Your task to perform on an android device: set default search engine in the chrome app Image 0: 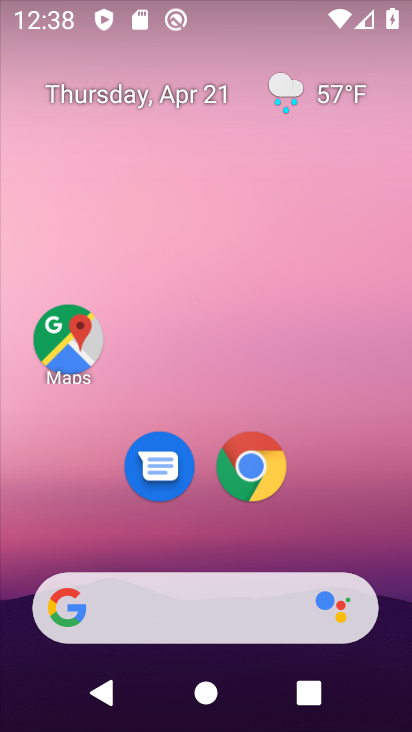
Step 0: drag from (349, 400) to (411, 44)
Your task to perform on an android device: set default search engine in the chrome app Image 1: 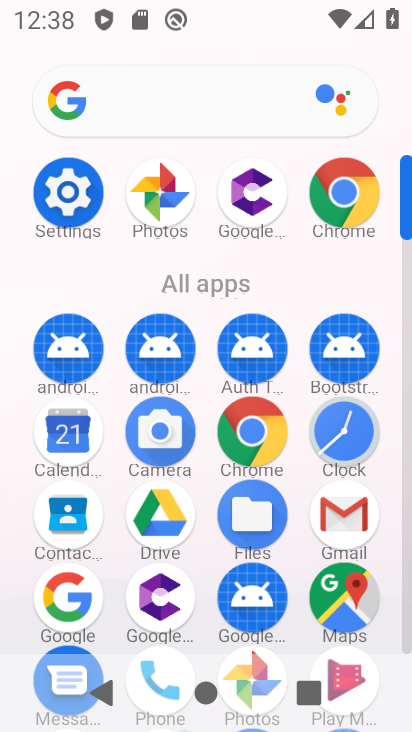
Step 1: click (357, 202)
Your task to perform on an android device: set default search engine in the chrome app Image 2: 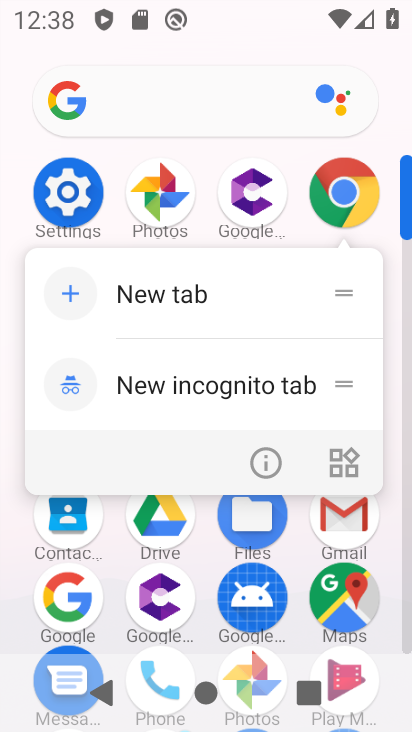
Step 2: click (357, 202)
Your task to perform on an android device: set default search engine in the chrome app Image 3: 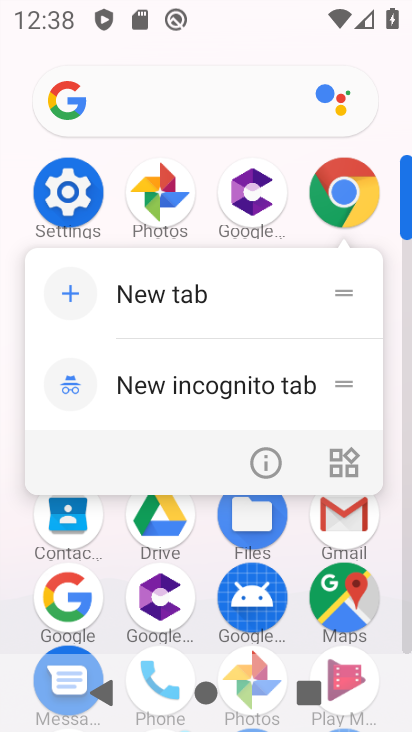
Step 3: click (357, 202)
Your task to perform on an android device: set default search engine in the chrome app Image 4: 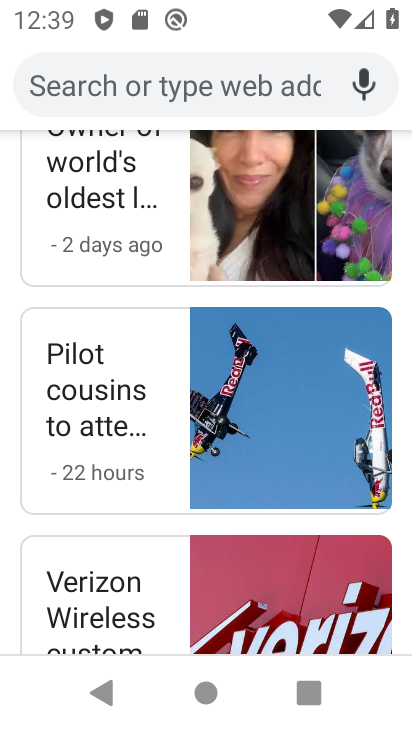
Step 4: drag from (209, 364) to (185, 603)
Your task to perform on an android device: set default search engine in the chrome app Image 5: 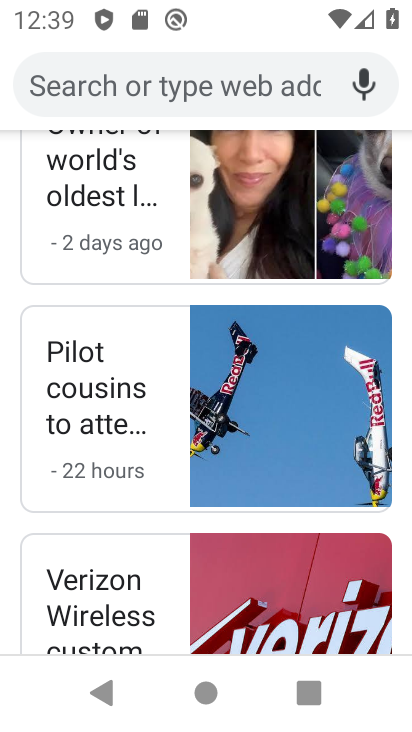
Step 5: drag from (214, 249) to (148, 557)
Your task to perform on an android device: set default search engine in the chrome app Image 6: 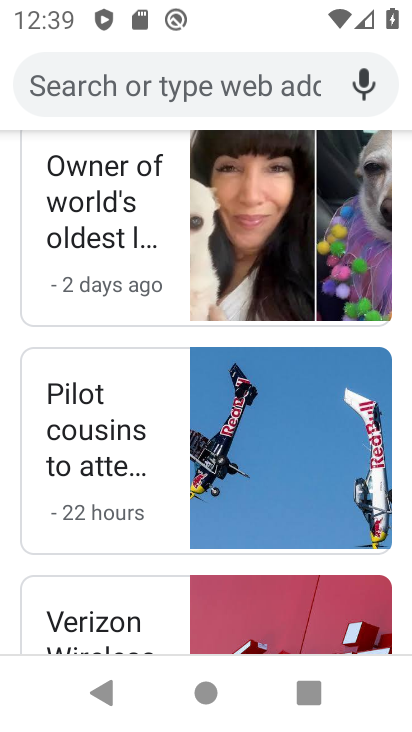
Step 6: drag from (183, 214) to (123, 625)
Your task to perform on an android device: set default search engine in the chrome app Image 7: 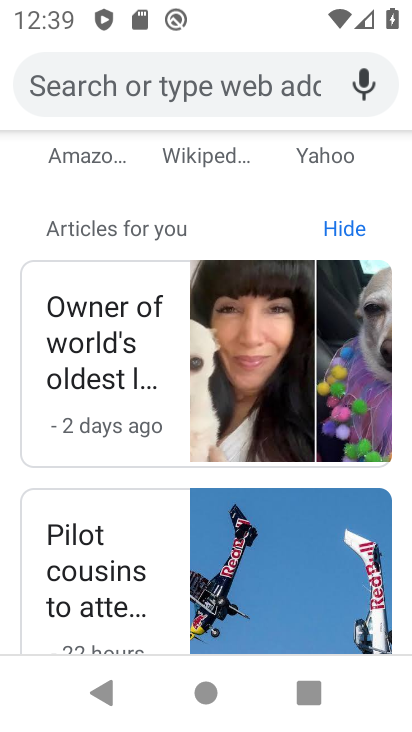
Step 7: drag from (144, 253) to (73, 629)
Your task to perform on an android device: set default search engine in the chrome app Image 8: 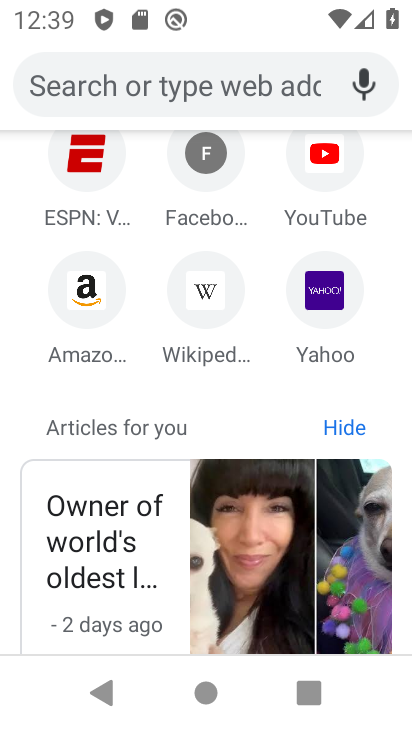
Step 8: drag from (142, 216) to (74, 633)
Your task to perform on an android device: set default search engine in the chrome app Image 9: 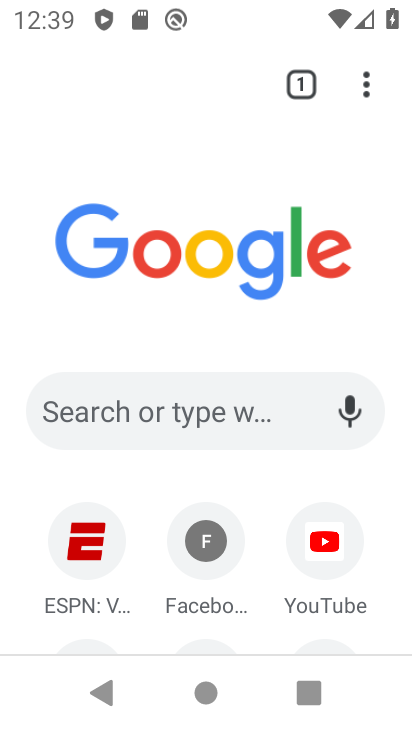
Step 9: click (363, 79)
Your task to perform on an android device: set default search engine in the chrome app Image 10: 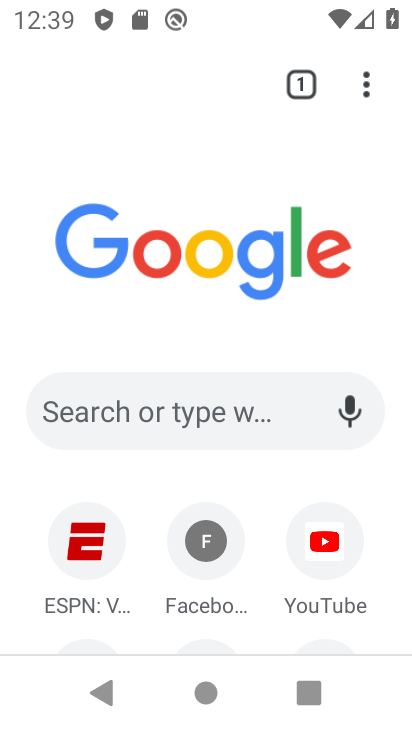
Step 10: drag from (363, 78) to (97, 520)
Your task to perform on an android device: set default search engine in the chrome app Image 11: 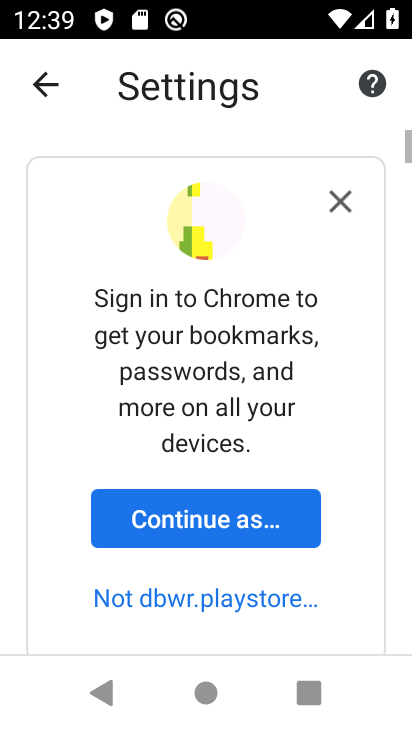
Step 11: click (176, 537)
Your task to perform on an android device: set default search engine in the chrome app Image 12: 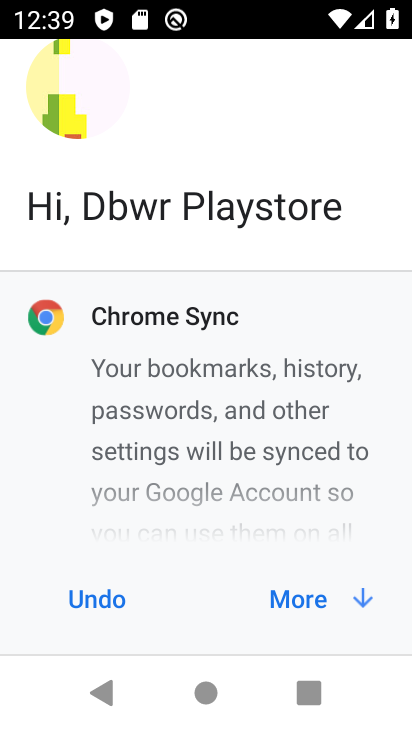
Step 12: click (254, 578)
Your task to perform on an android device: set default search engine in the chrome app Image 13: 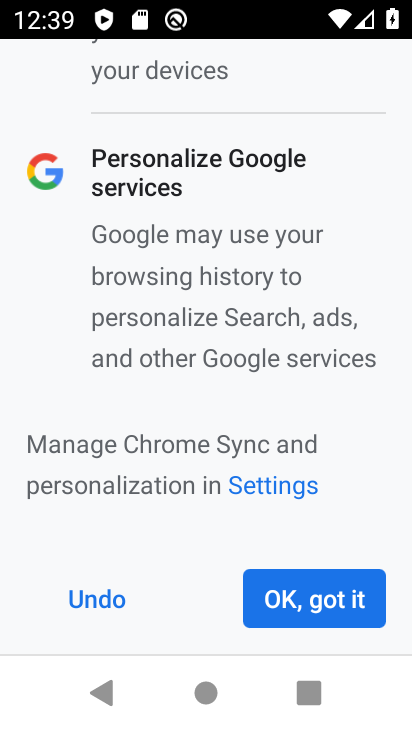
Step 13: click (298, 604)
Your task to perform on an android device: set default search engine in the chrome app Image 14: 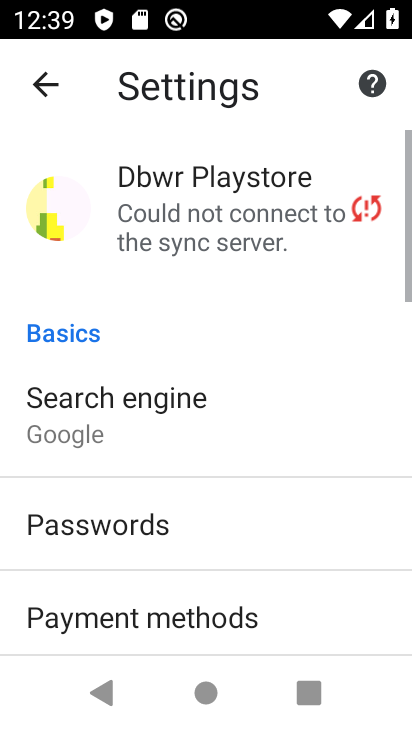
Step 14: click (171, 424)
Your task to perform on an android device: set default search engine in the chrome app Image 15: 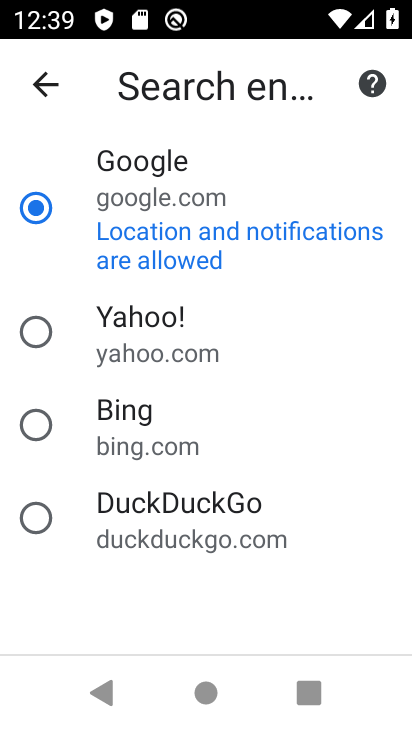
Step 15: task complete